Your task to perform on an android device: refresh tabs in the chrome app Image 0: 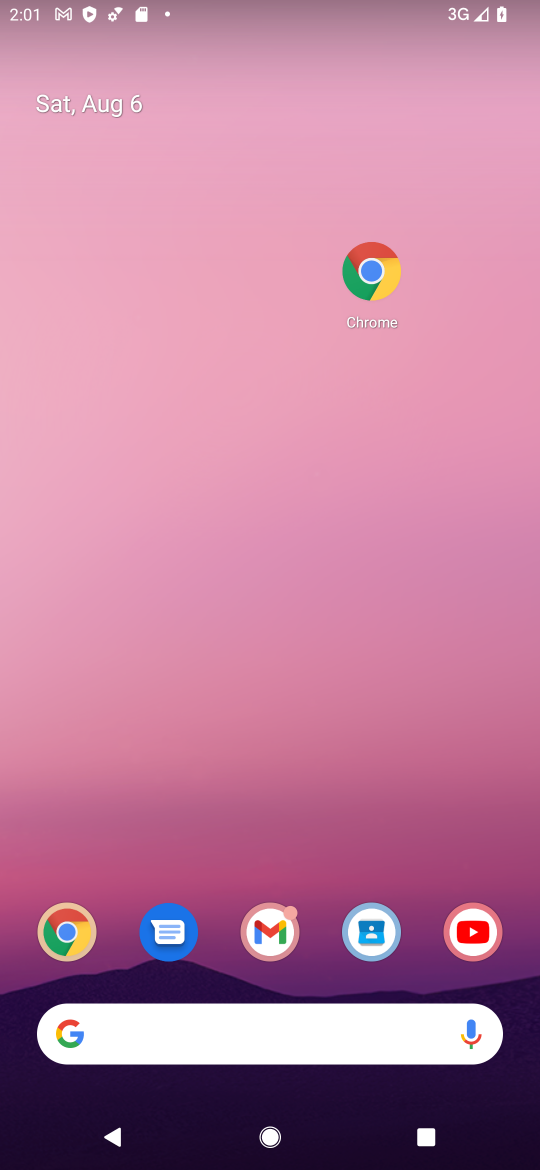
Step 0: drag from (305, 954) to (472, 171)
Your task to perform on an android device: refresh tabs in the chrome app Image 1: 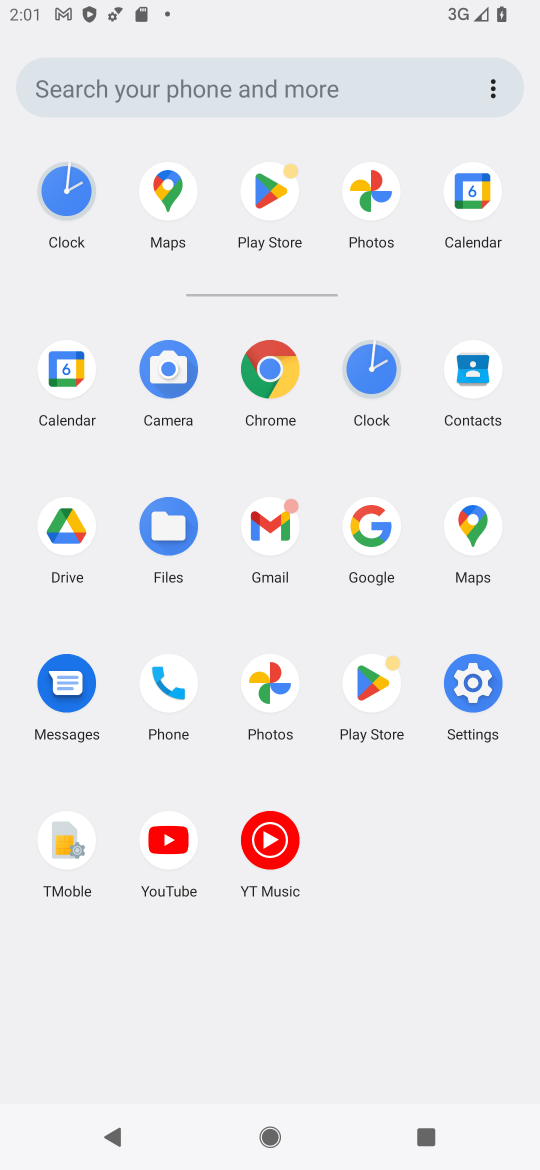
Step 1: click (269, 367)
Your task to perform on an android device: refresh tabs in the chrome app Image 2: 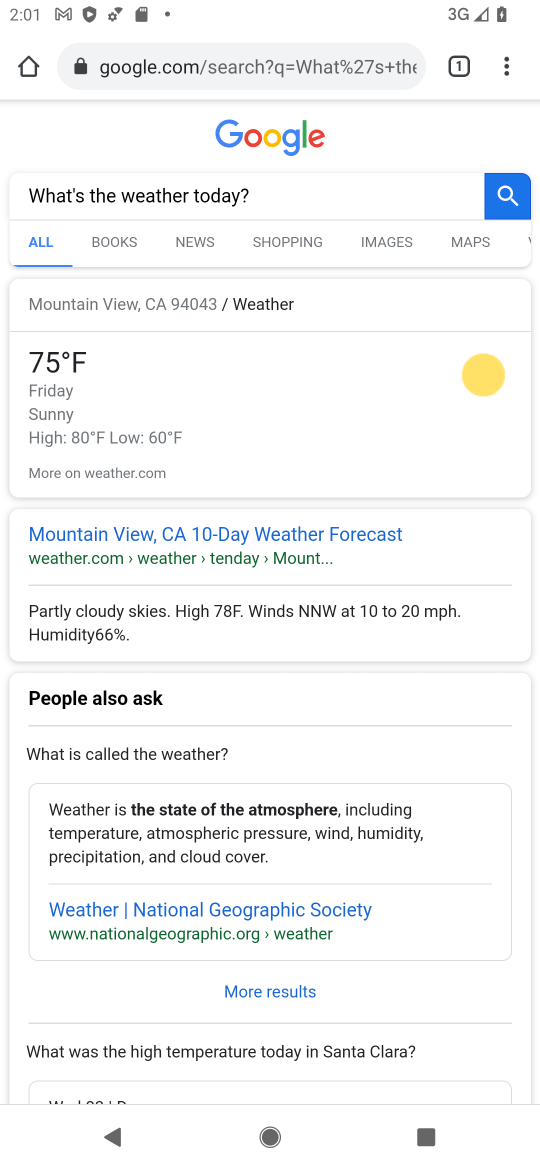
Step 2: click (512, 61)
Your task to perform on an android device: refresh tabs in the chrome app Image 3: 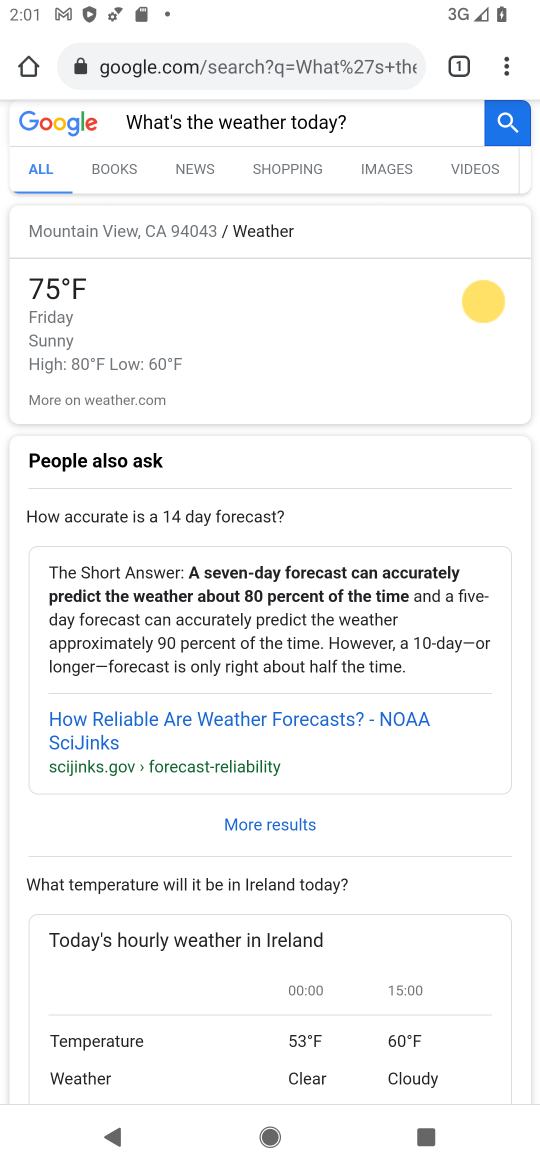
Step 3: task complete